Your task to perform on an android device: turn on the 12-hour format for clock Image 0: 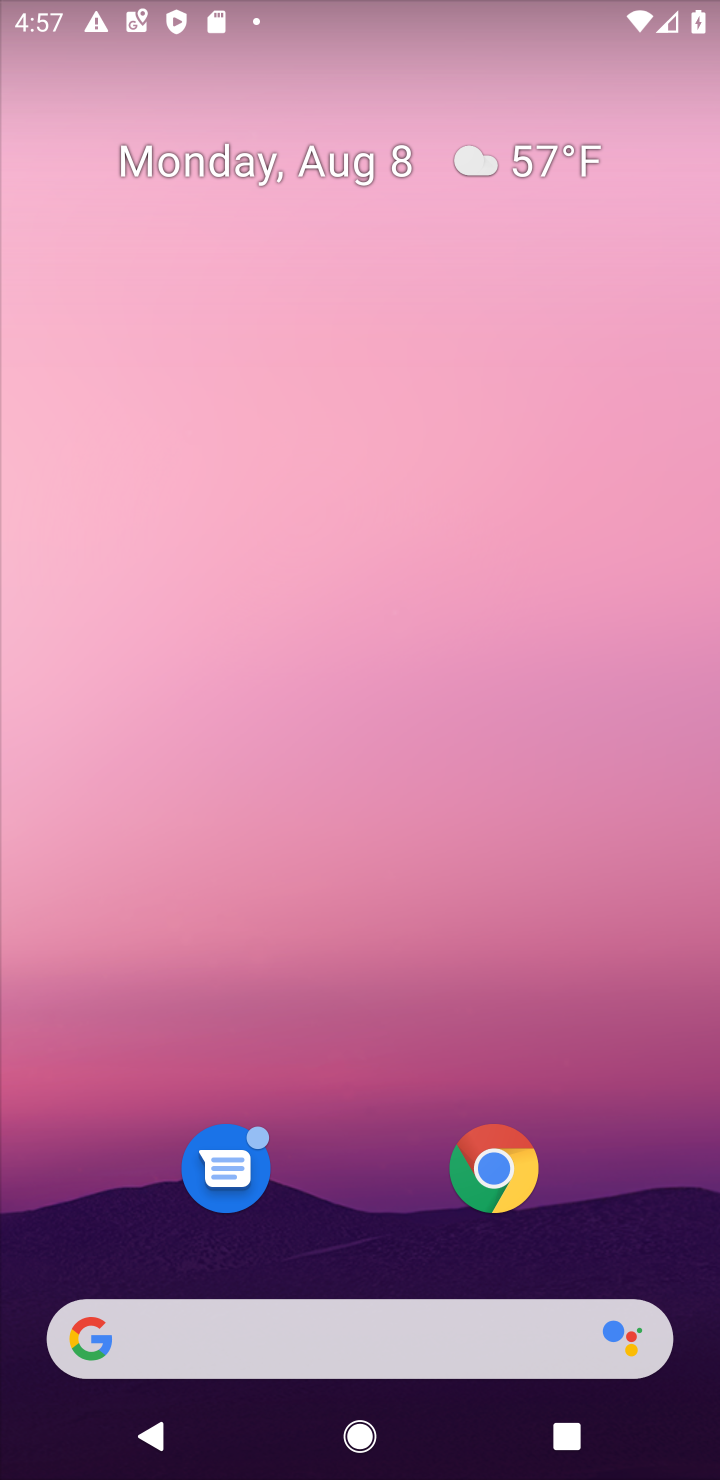
Step 0: drag from (367, 1152) to (398, 231)
Your task to perform on an android device: turn on the 12-hour format for clock Image 1: 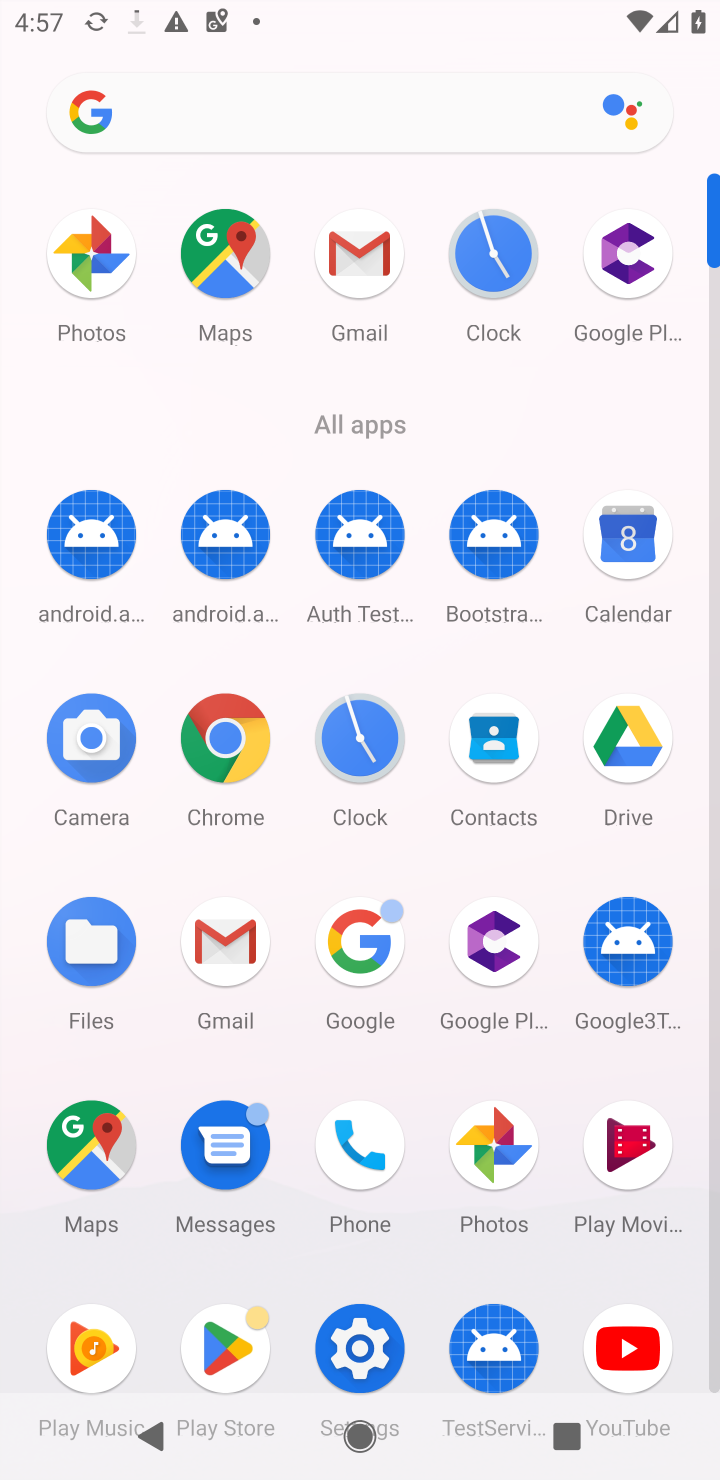
Step 1: click (370, 1343)
Your task to perform on an android device: turn on the 12-hour format for clock Image 2: 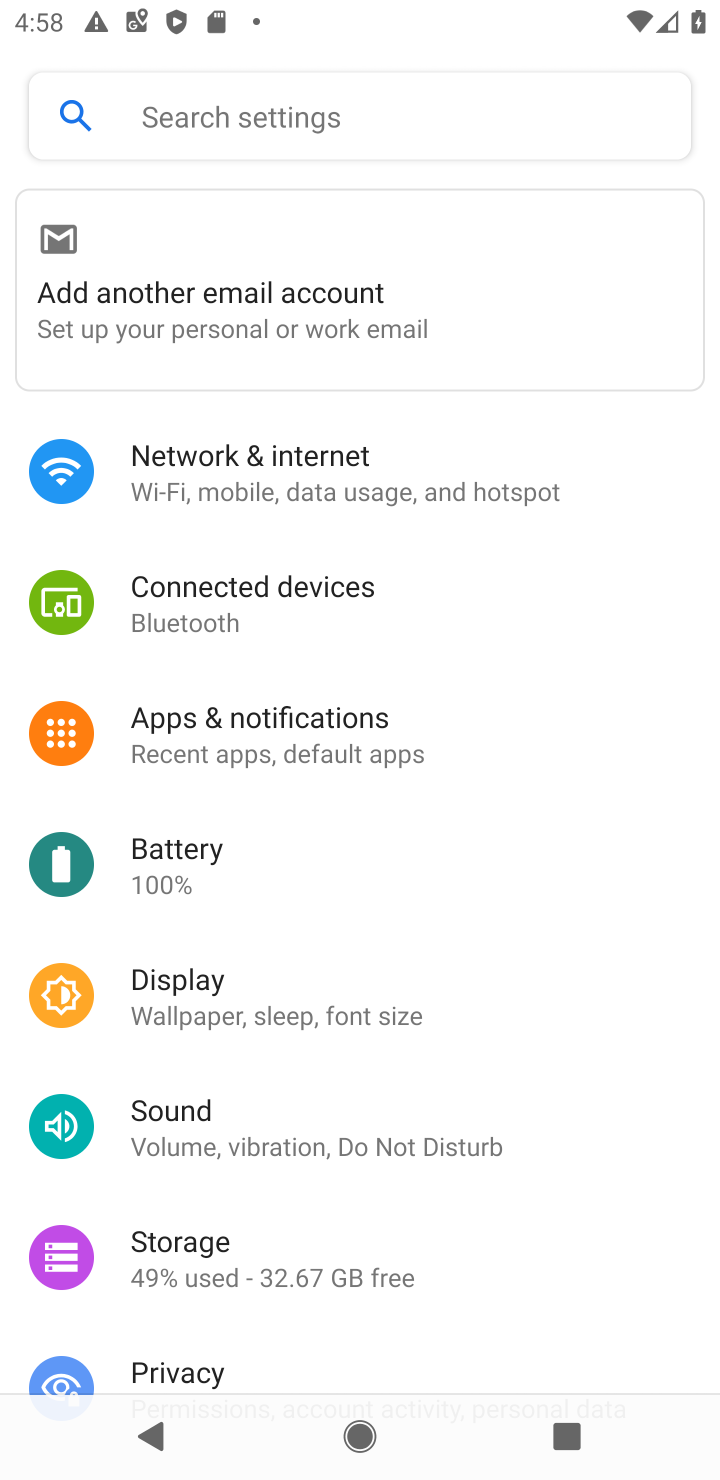
Step 2: drag from (401, 1296) to (431, 406)
Your task to perform on an android device: turn on the 12-hour format for clock Image 3: 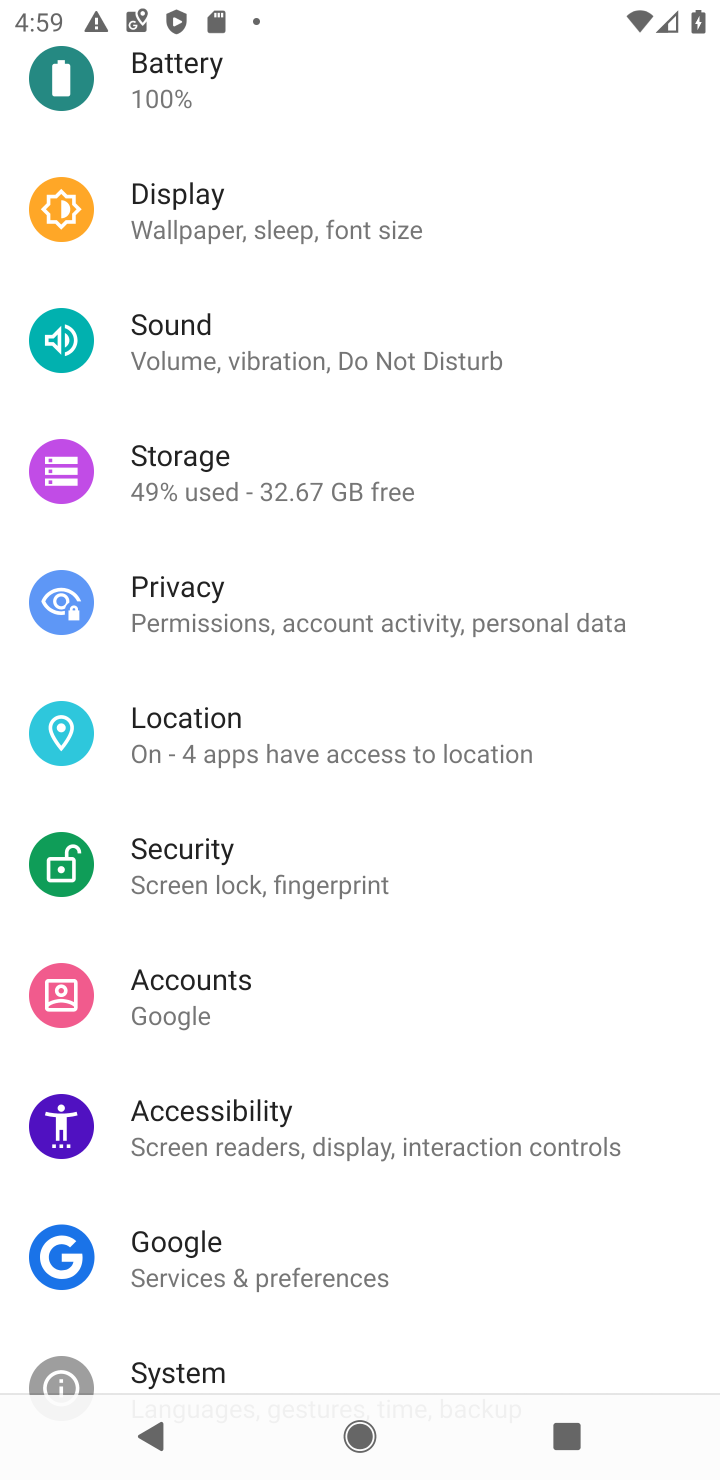
Step 3: drag from (310, 1203) to (346, 599)
Your task to perform on an android device: turn on the 12-hour format for clock Image 4: 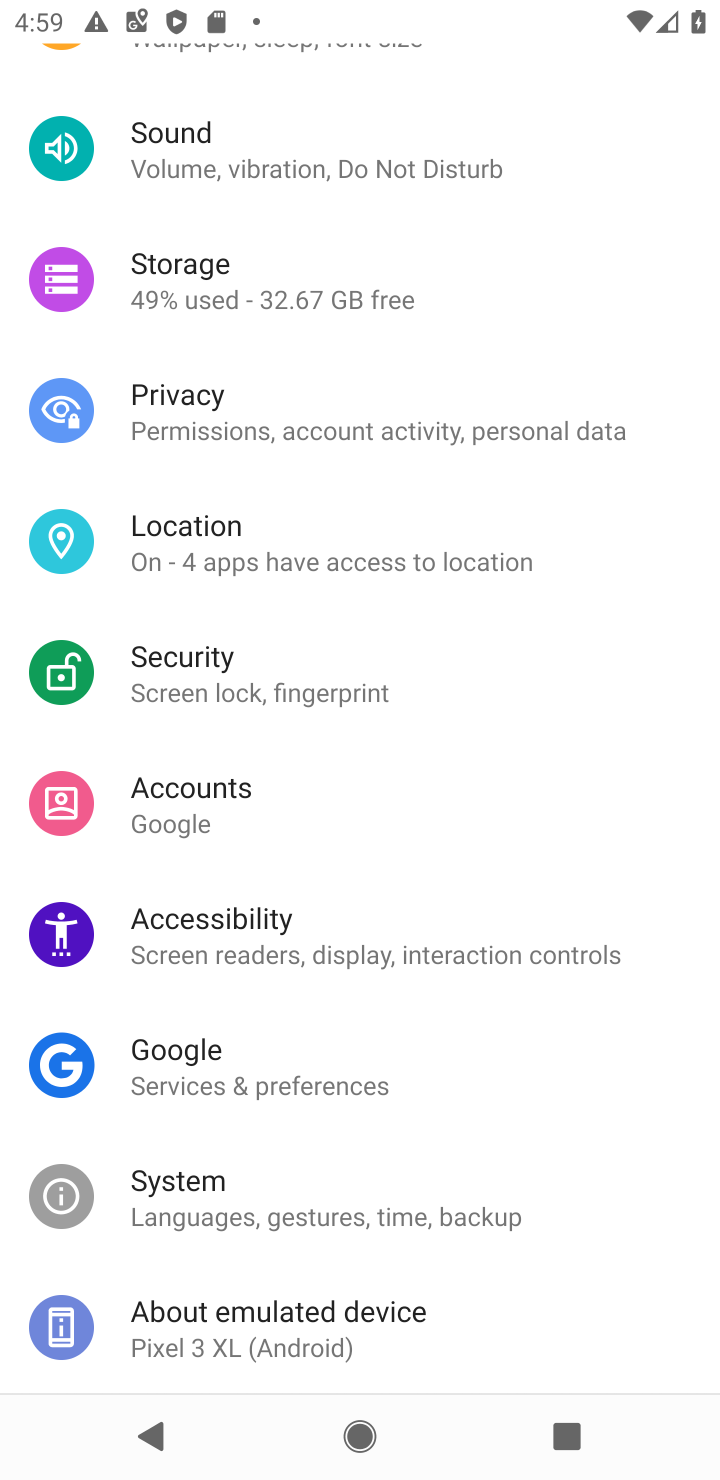
Step 4: click (300, 1197)
Your task to perform on an android device: turn on the 12-hour format for clock Image 5: 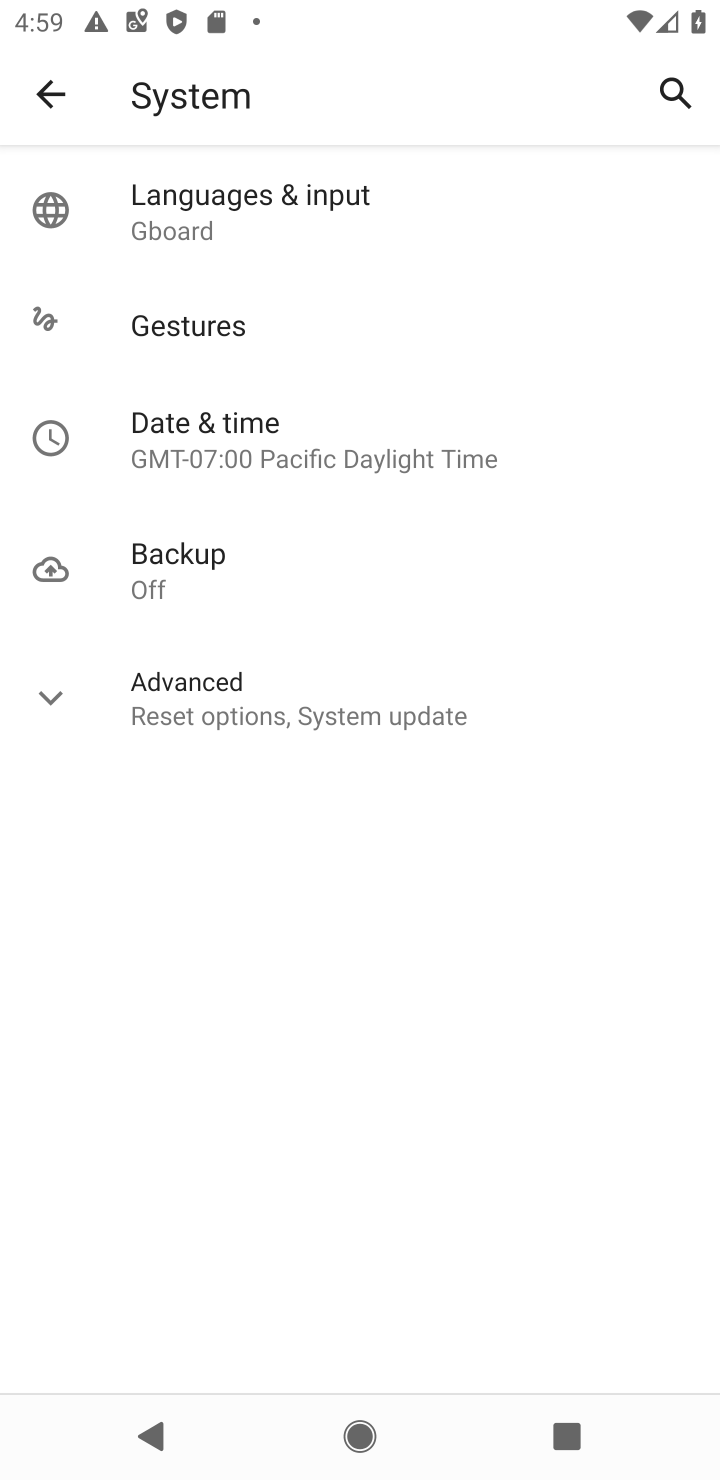
Step 5: click (218, 469)
Your task to perform on an android device: turn on the 12-hour format for clock Image 6: 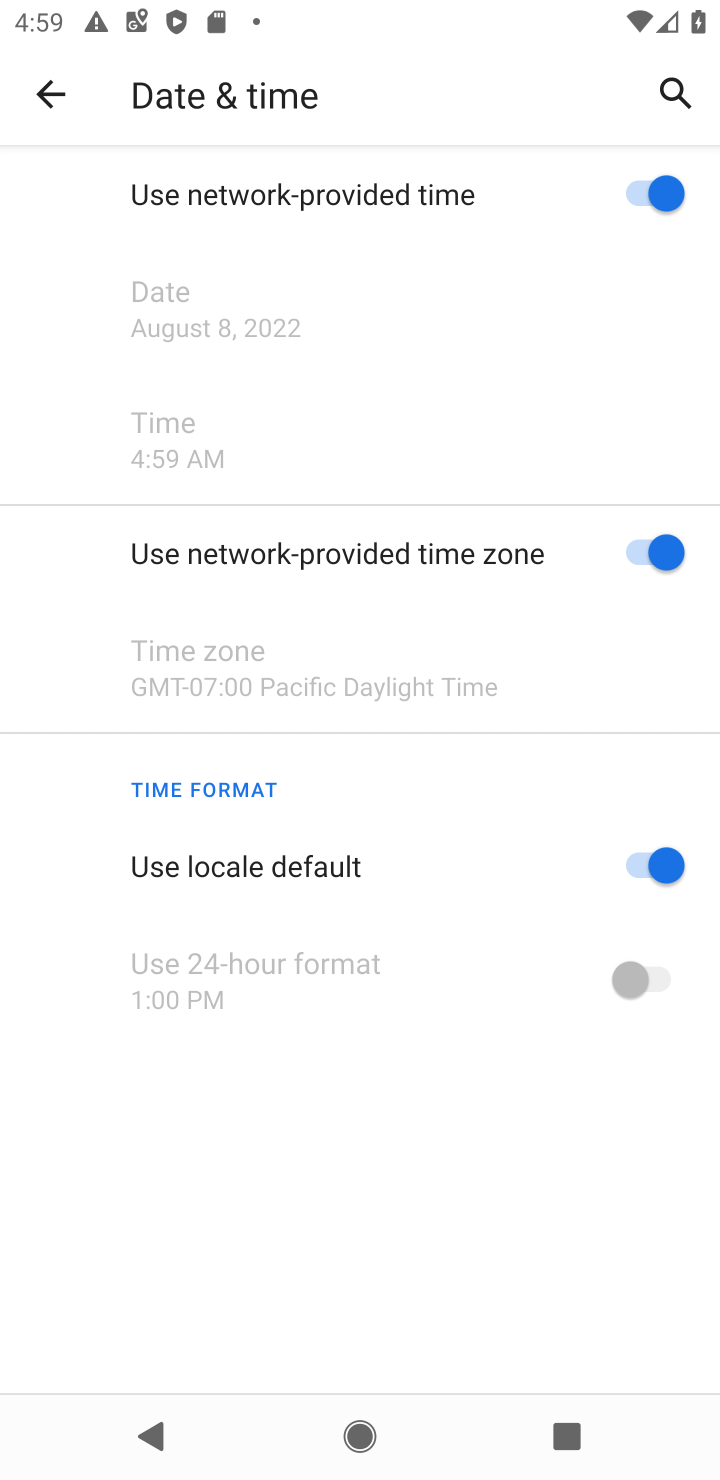
Step 6: task complete